Your task to perform on an android device: Is it going to rain today? Image 0: 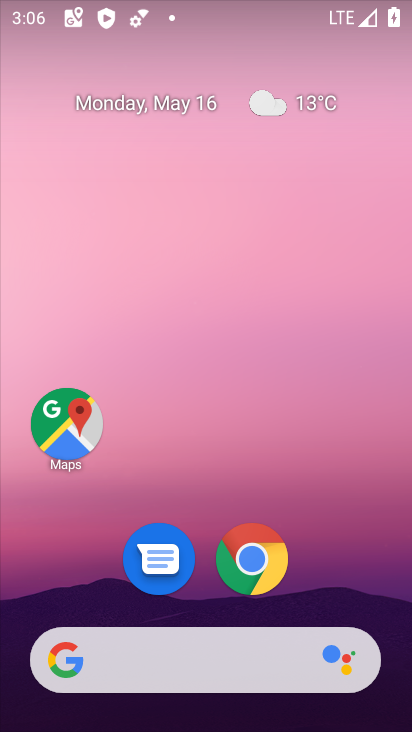
Step 0: click (289, 105)
Your task to perform on an android device: Is it going to rain today? Image 1: 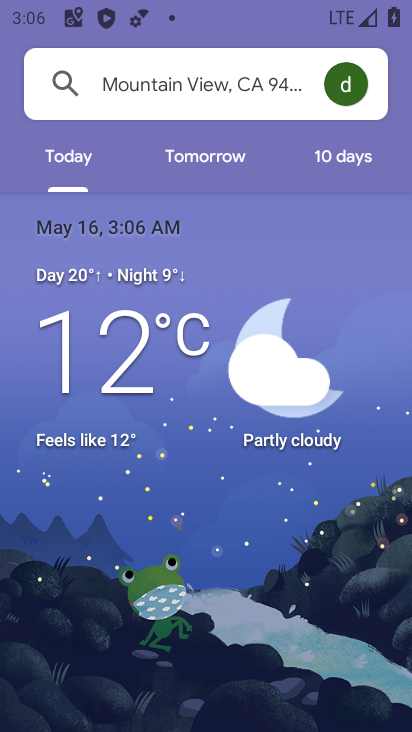
Step 1: click (53, 156)
Your task to perform on an android device: Is it going to rain today? Image 2: 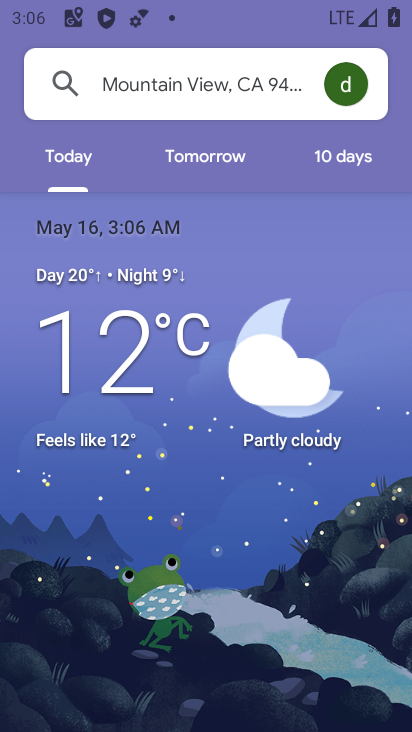
Step 2: task complete